Your task to perform on an android device: open app "Microsoft Outlook" Image 0: 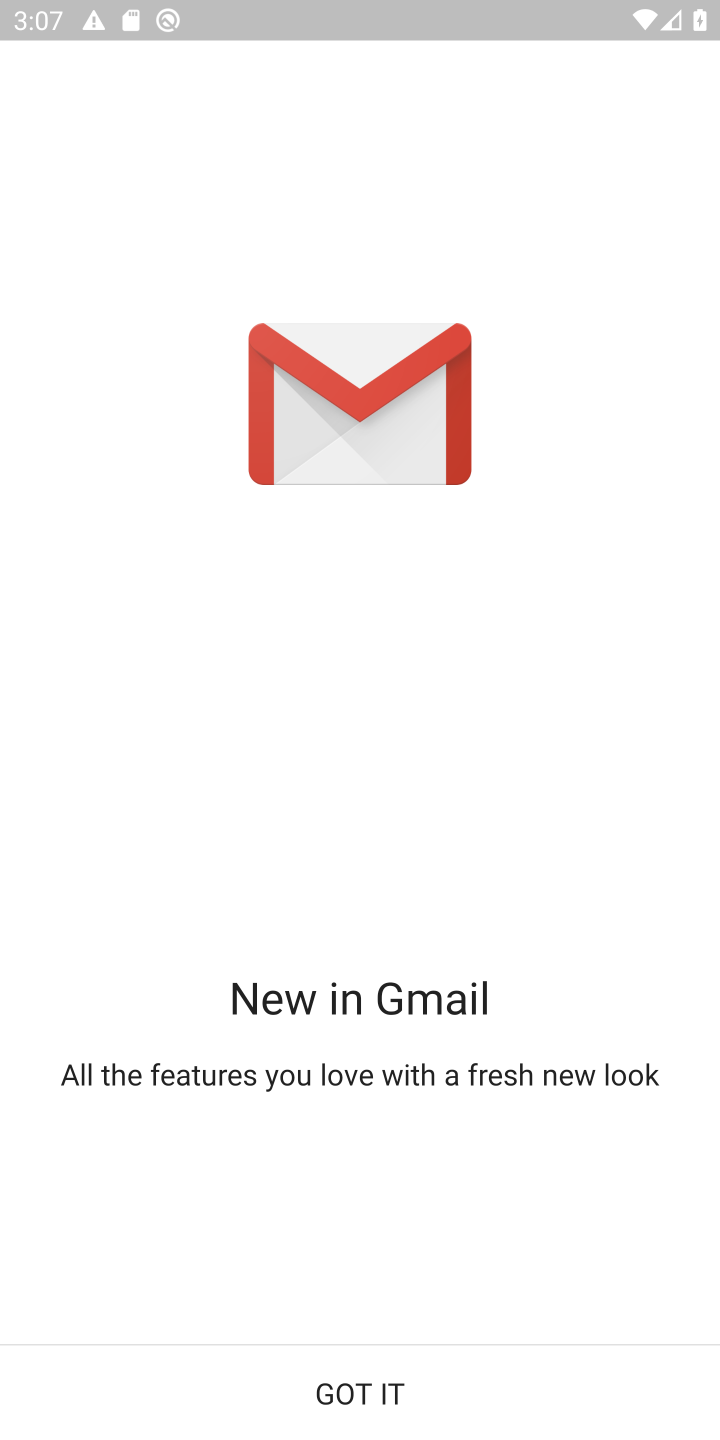
Step 0: press home button
Your task to perform on an android device: open app "Microsoft Outlook" Image 1: 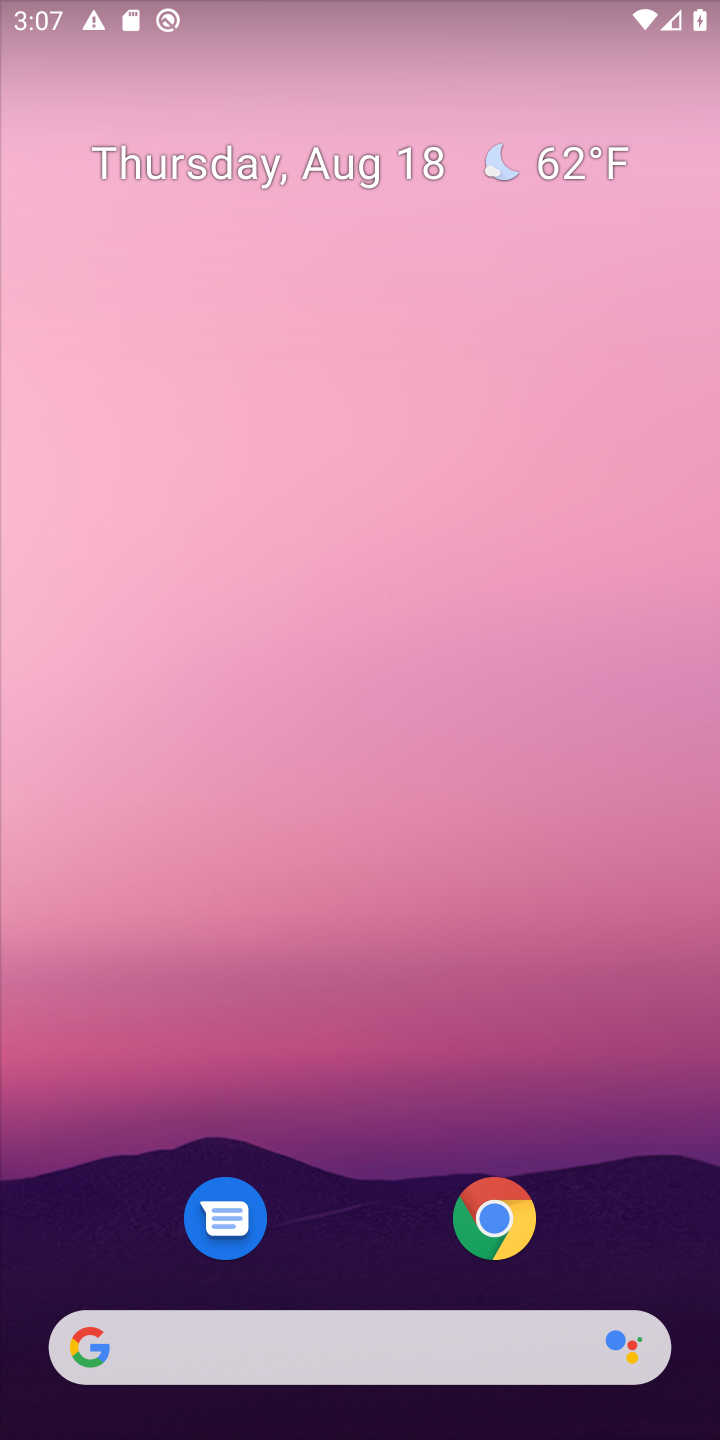
Step 1: drag from (334, 1142) to (290, 432)
Your task to perform on an android device: open app "Microsoft Outlook" Image 2: 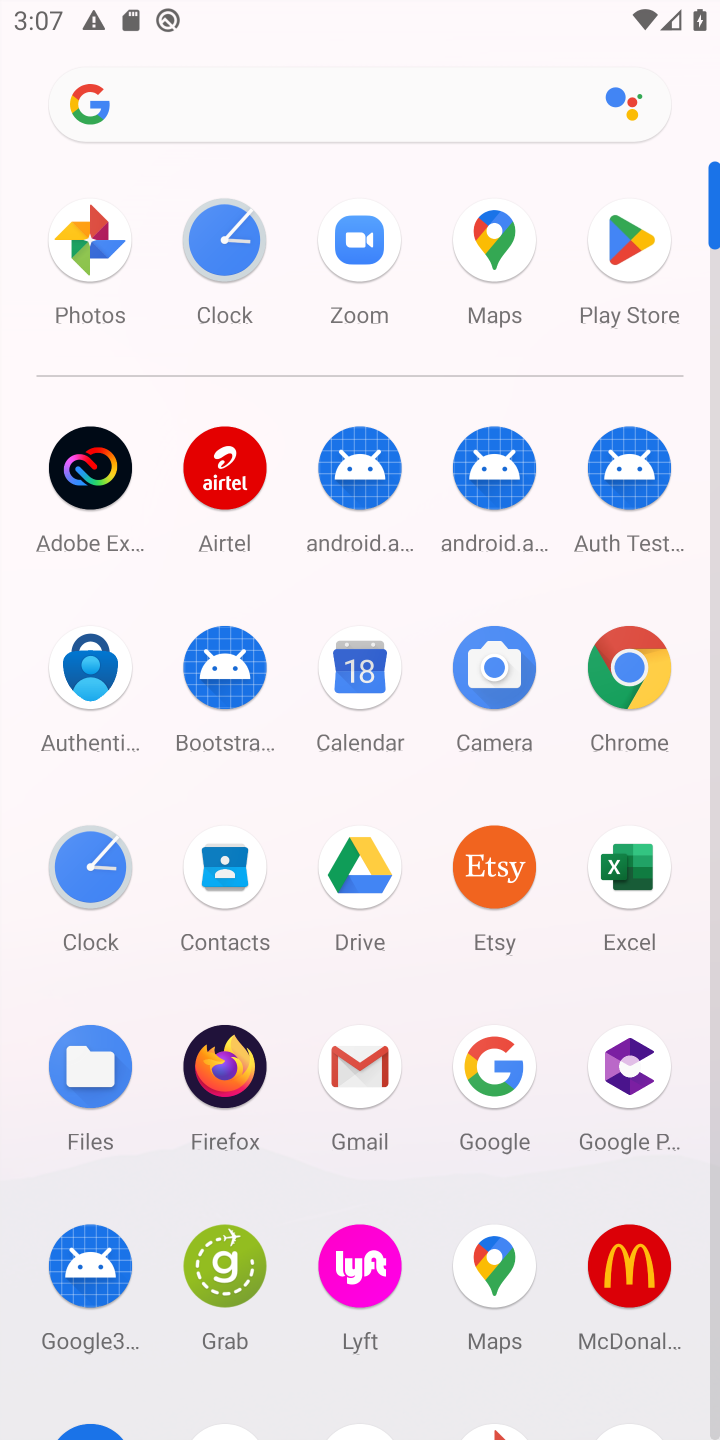
Step 2: click (651, 233)
Your task to perform on an android device: open app "Microsoft Outlook" Image 3: 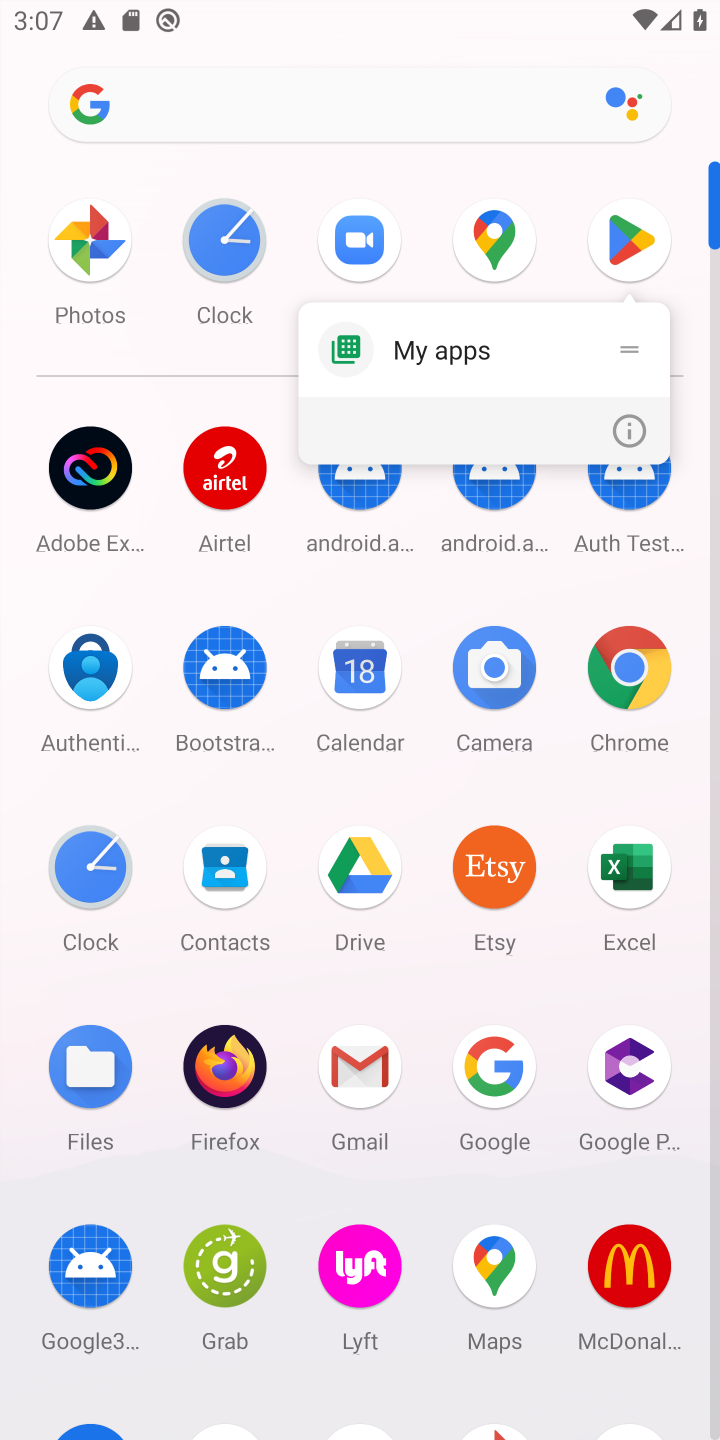
Step 3: click (618, 250)
Your task to perform on an android device: open app "Microsoft Outlook" Image 4: 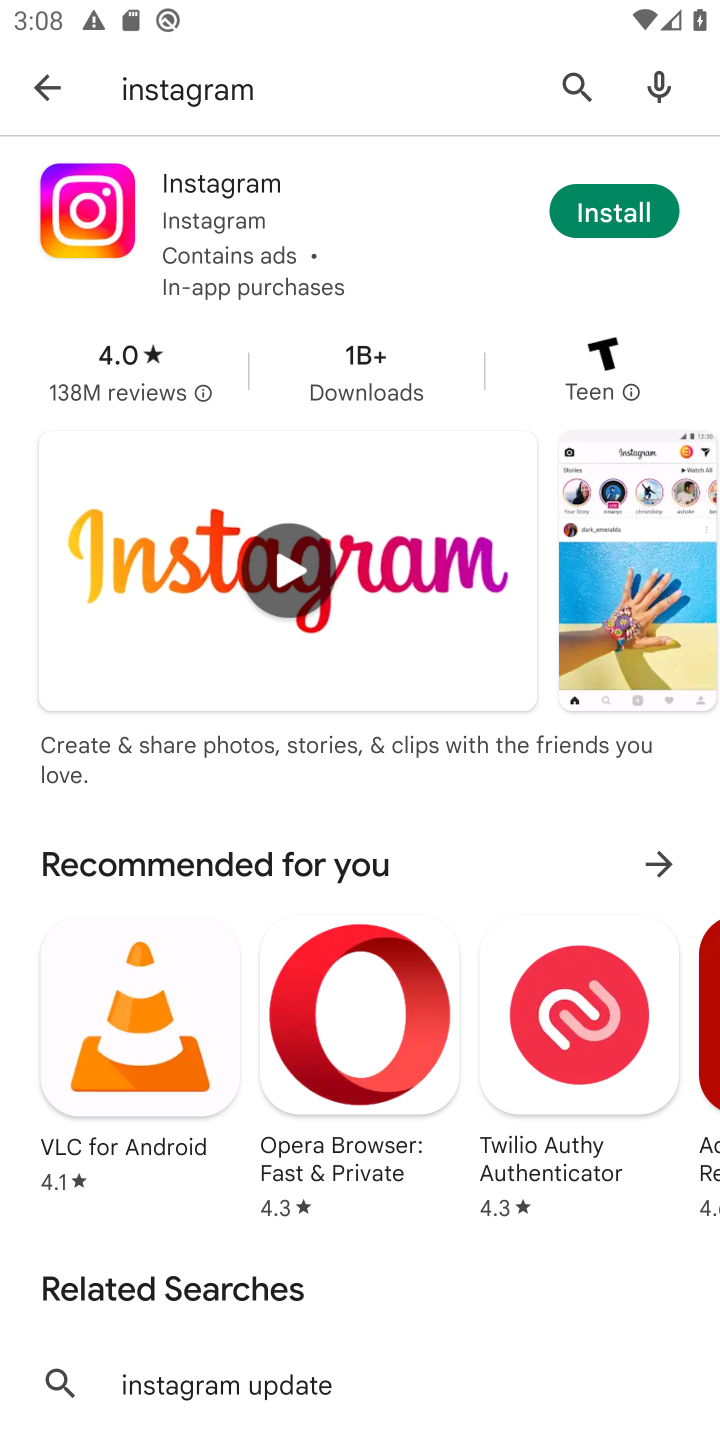
Step 4: click (574, 101)
Your task to perform on an android device: open app "Microsoft Outlook" Image 5: 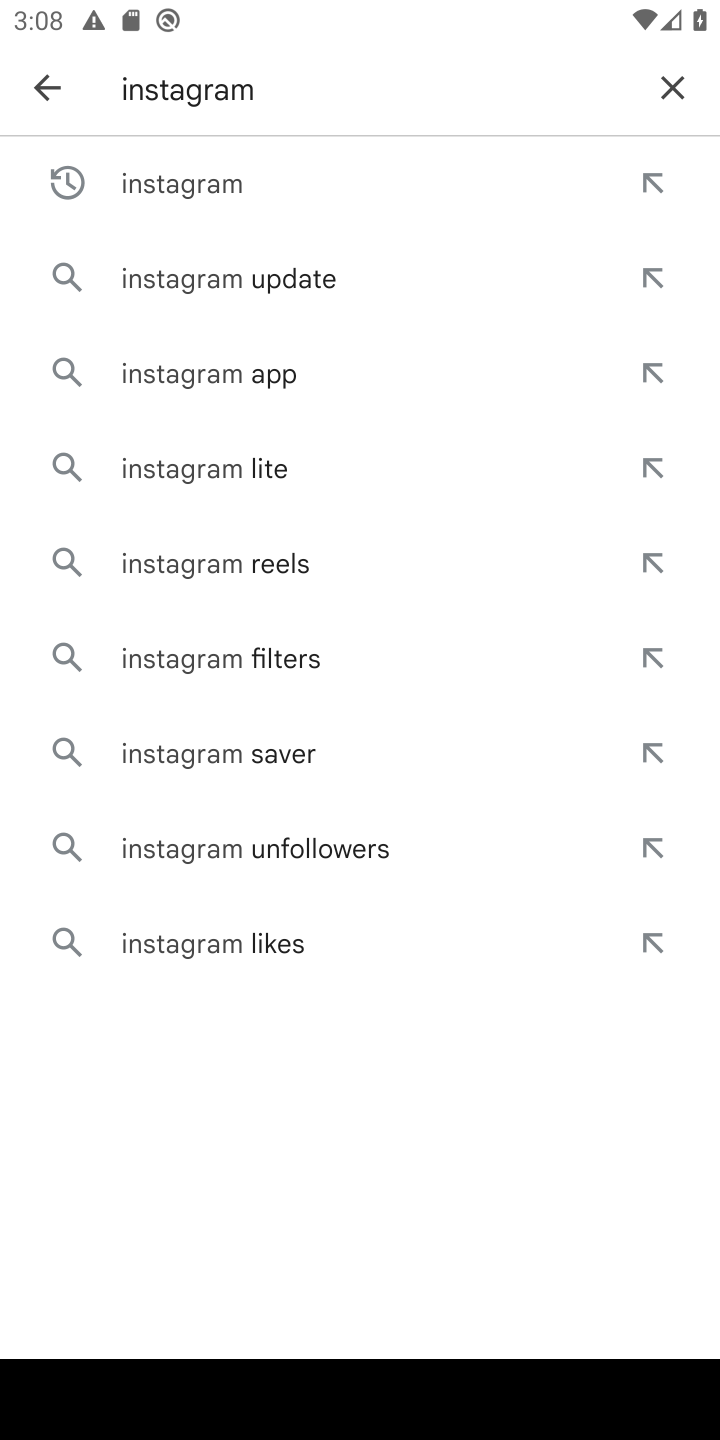
Step 5: click (676, 96)
Your task to perform on an android device: open app "Microsoft Outlook" Image 6: 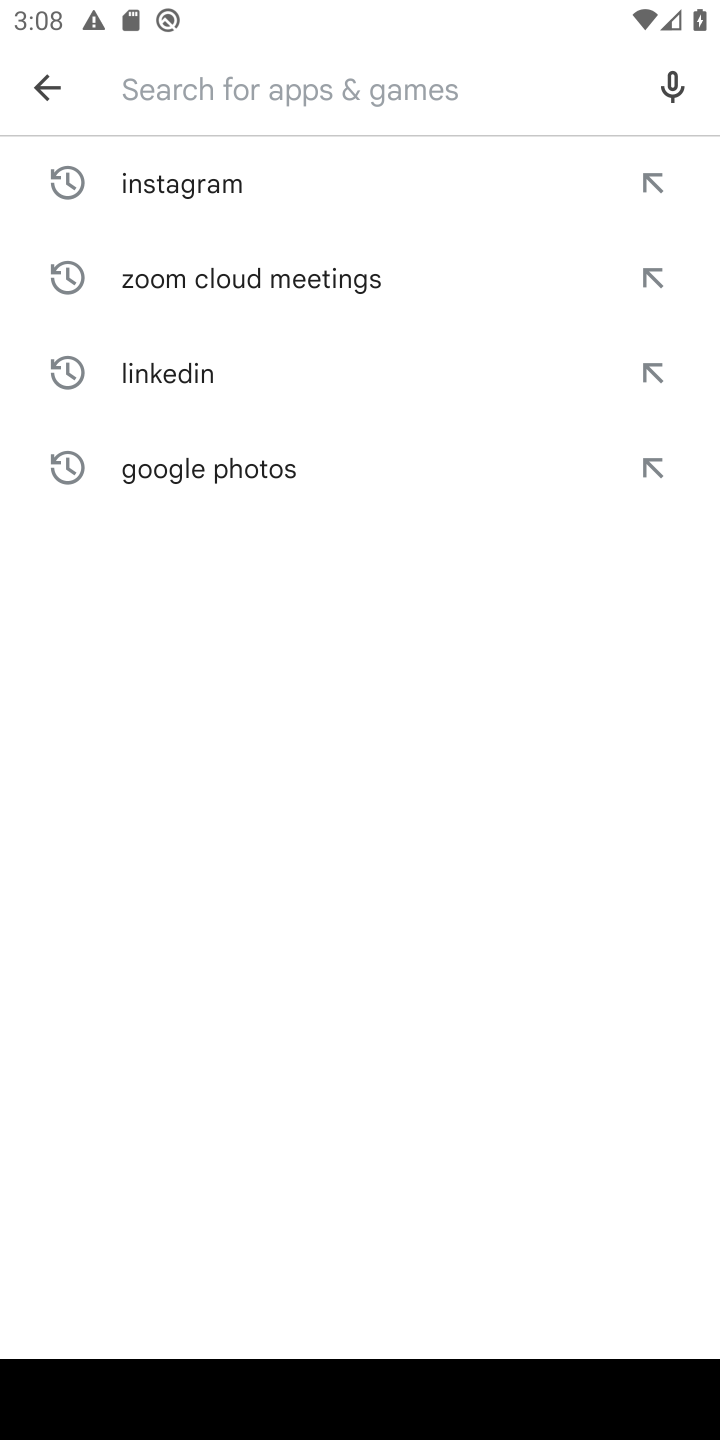
Step 6: type "Microsoft Outlook"
Your task to perform on an android device: open app "Microsoft Outlook" Image 7: 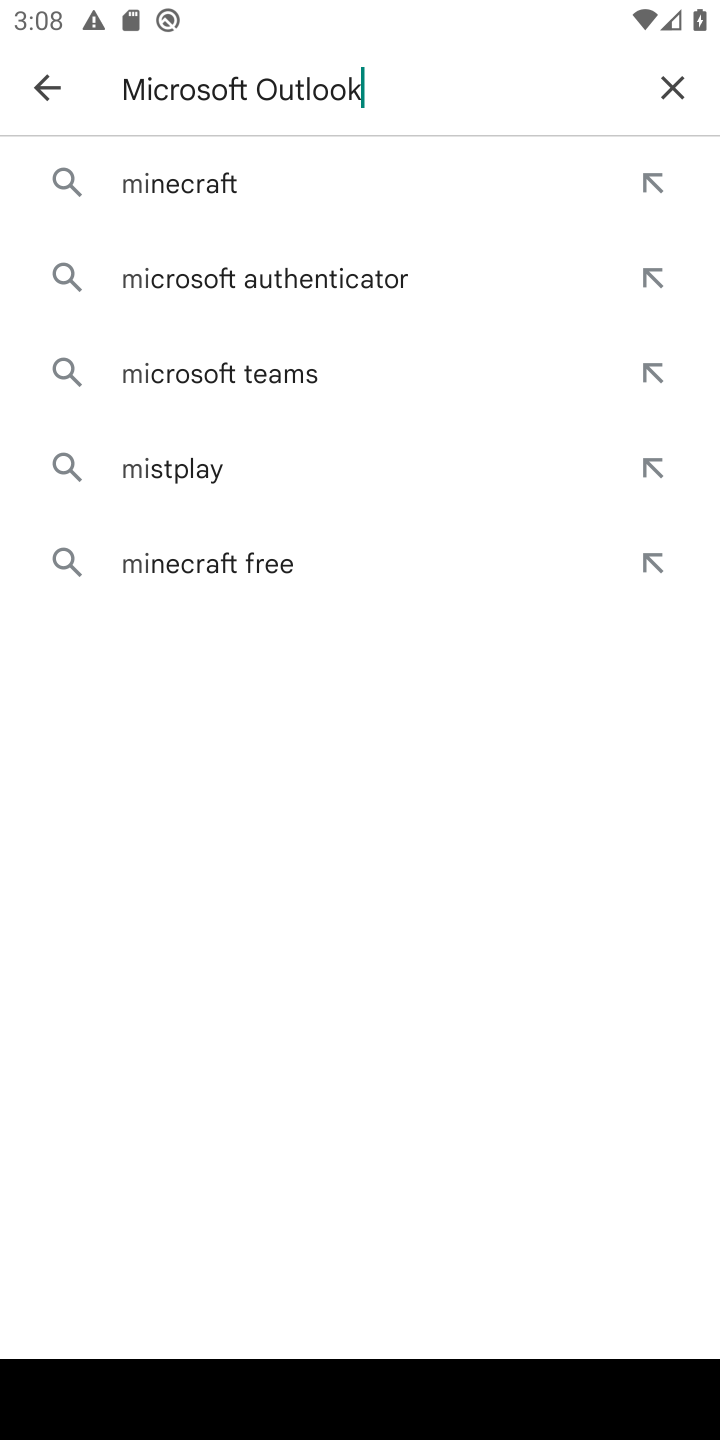
Step 7: type ""
Your task to perform on an android device: open app "Microsoft Outlook" Image 8: 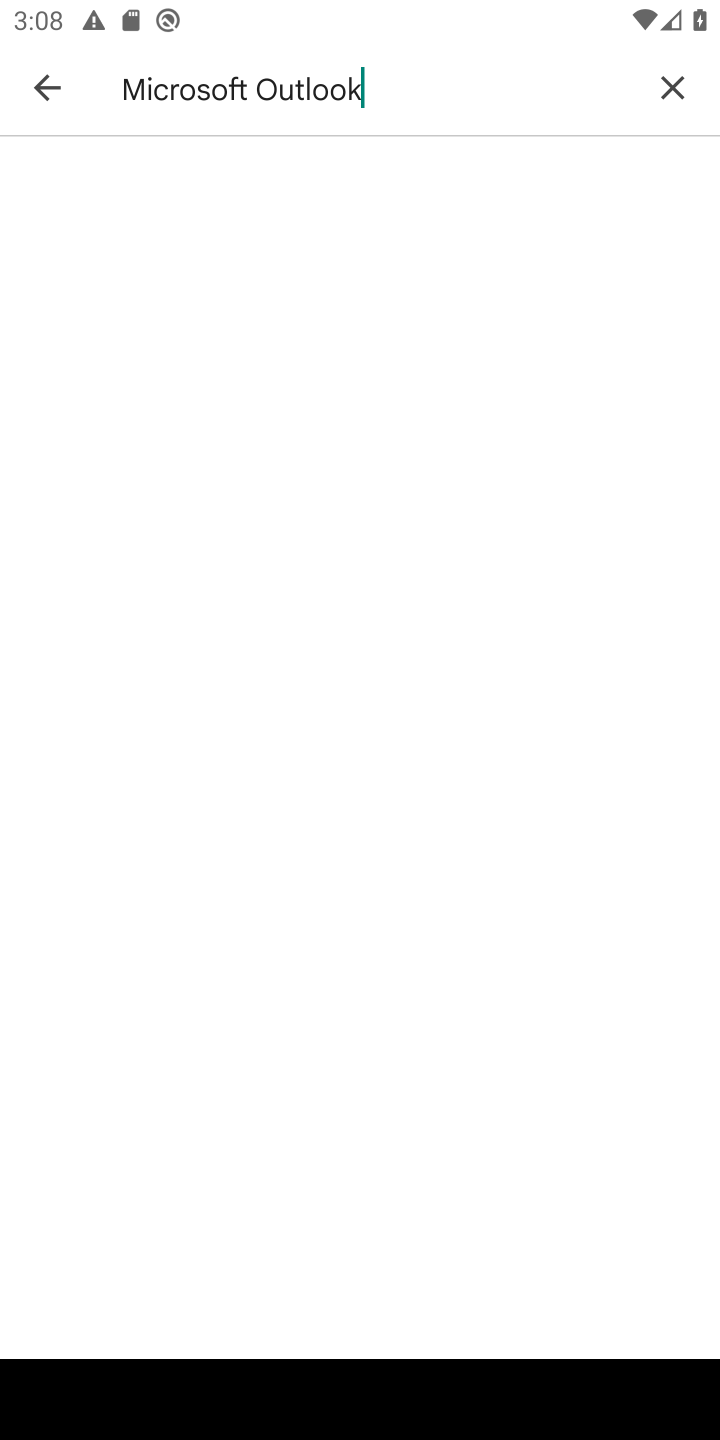
Step 8: click (462, 97)
Your task to perform on an android device: open app "Microsoft Outlook" Image 9: 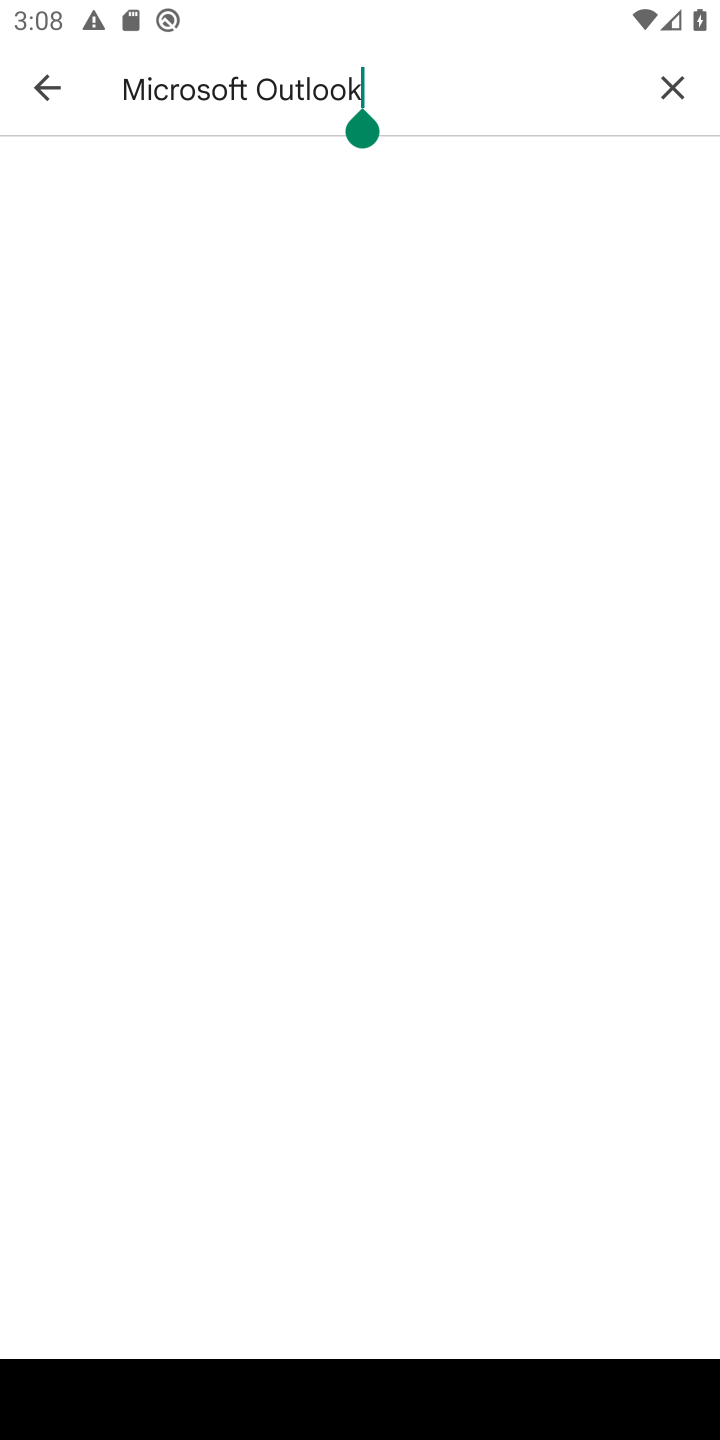
Step 9: task complete